Your task to perform on an android device: Open Google Chrome and open the bookmarks view Image 0: 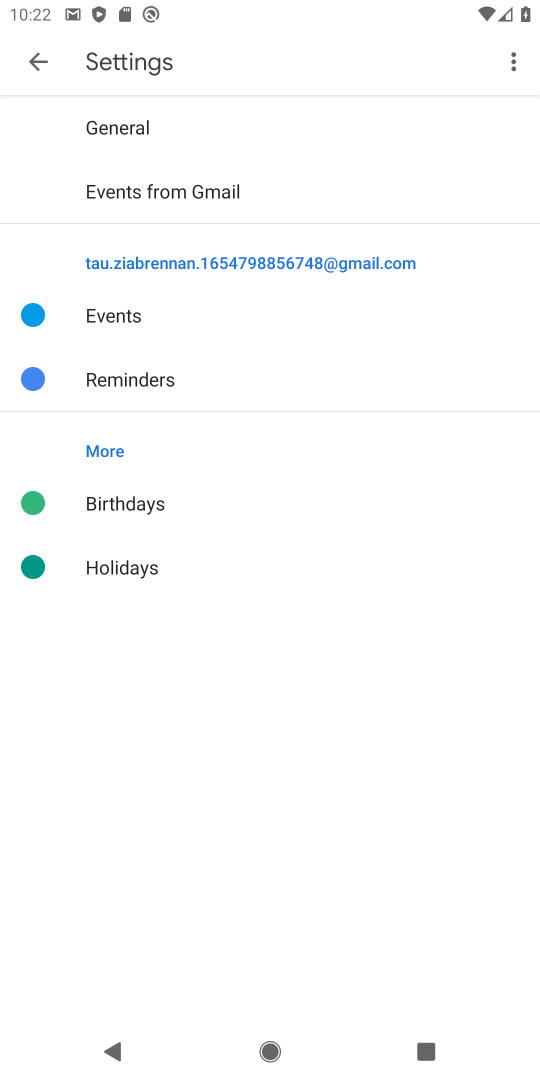
Step 0: press home button
Your task to perform on an android device: Open Google Chrome and open the bookmarks view Image 1: 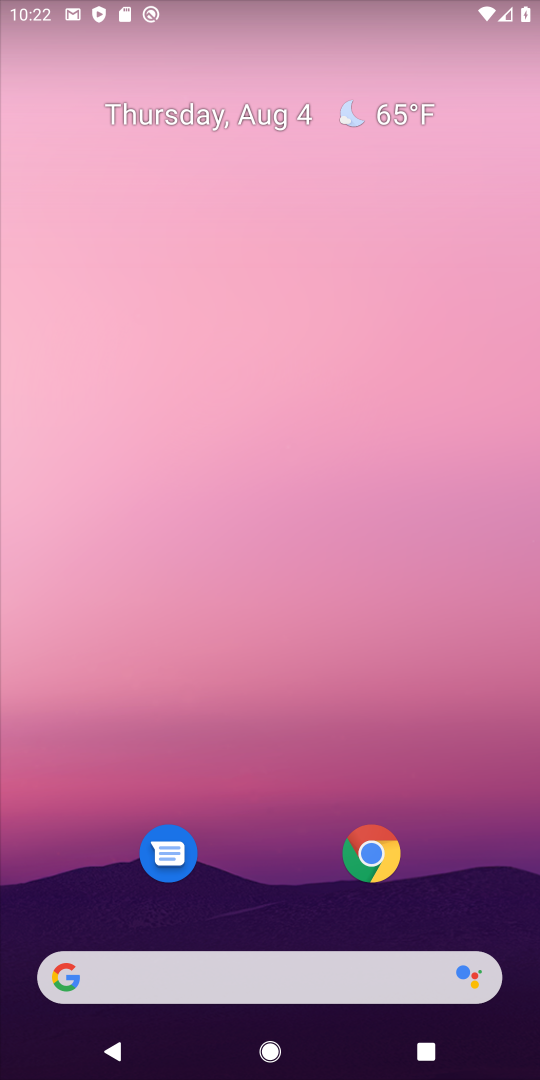
Step 1: click (370, 850)
Your task to perform on an android device: Open Google Chrome and open the bookmarks view Image 2: 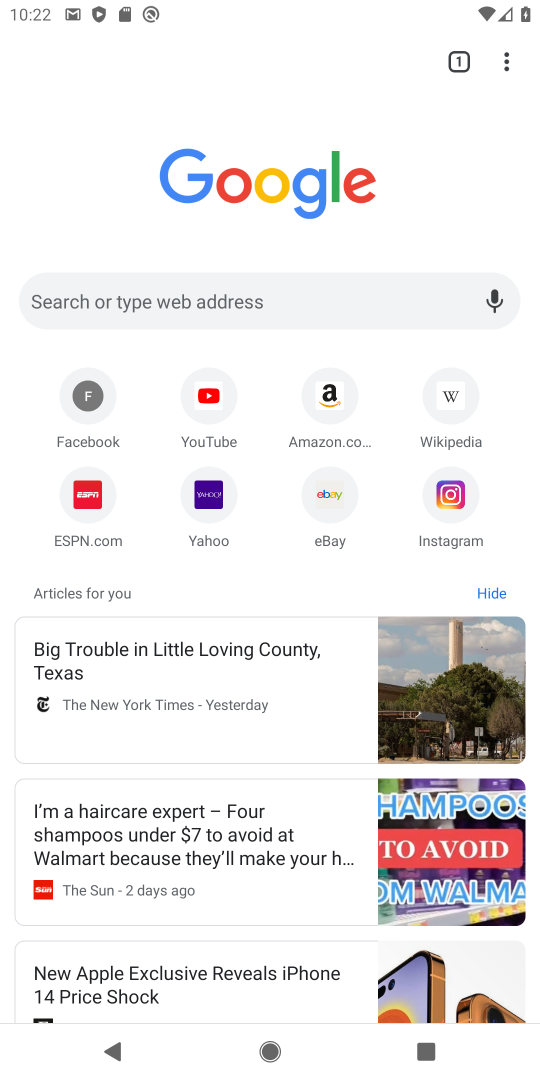
Step 2: task complete